Your task to perform on an android device: Is it going to rain tomorrow? Image 0: 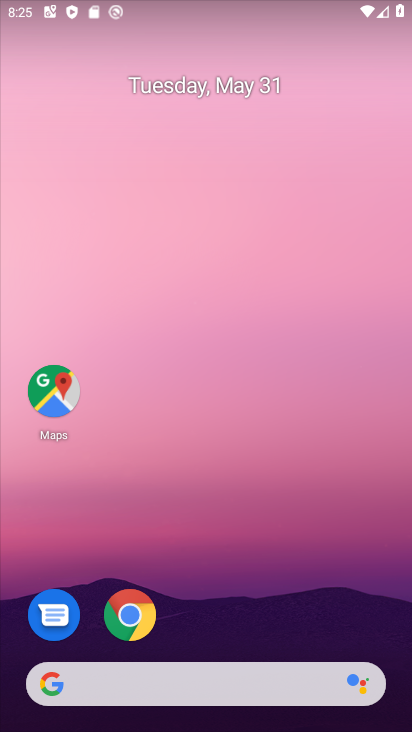
Step 0: click (380, 646)
Your task to perform on an android device: Is it going to rain tomorrow? Image 1: 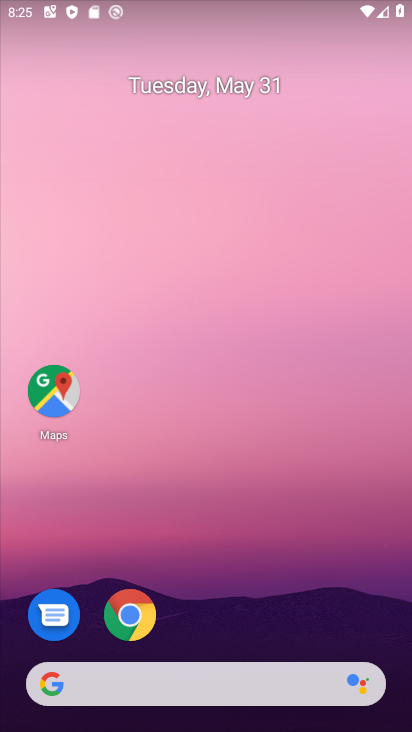
Step 1: click (187, 680)
Your task to perform on an android device: Is it going to rain tomorrow? Image 2: 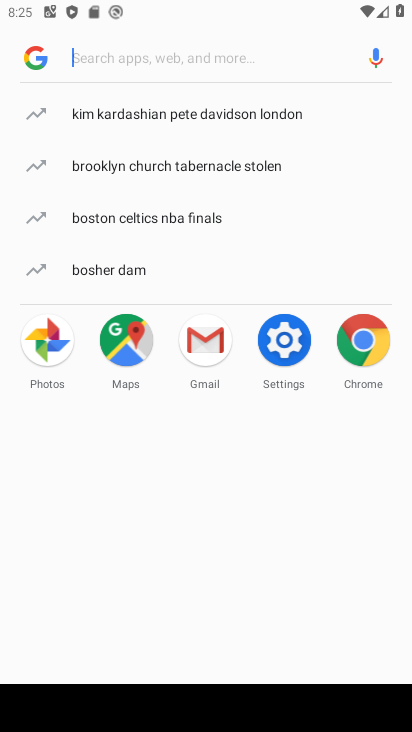
Step 2: press back button
Your task to perform on an android device: Is it going to rain tomorrow? Image 3: 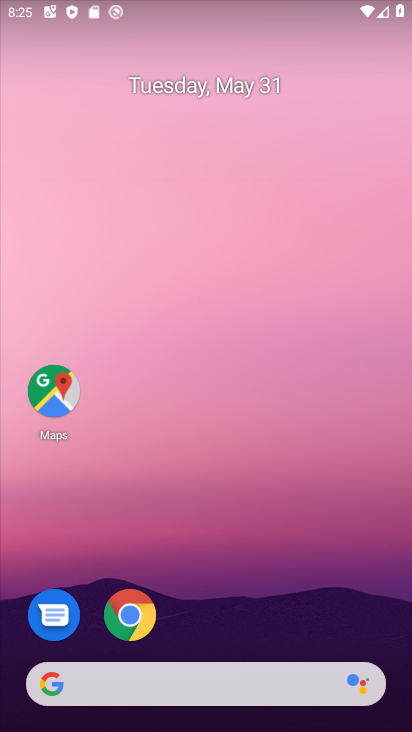
Step 3: drag from (24, 272) to (362, 239)
Your task to perform on an android device: Is it going to rain tomorrow? Image 4: 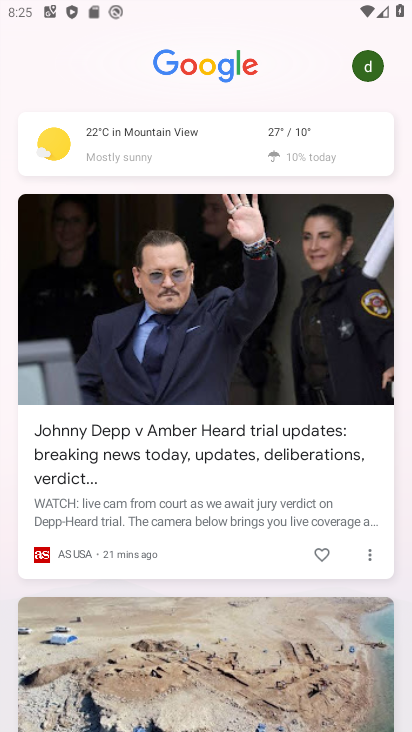
Step 4: click (284, 138)
Your task to perform on an android device: Is it going to rain tomorrow? Image 5: 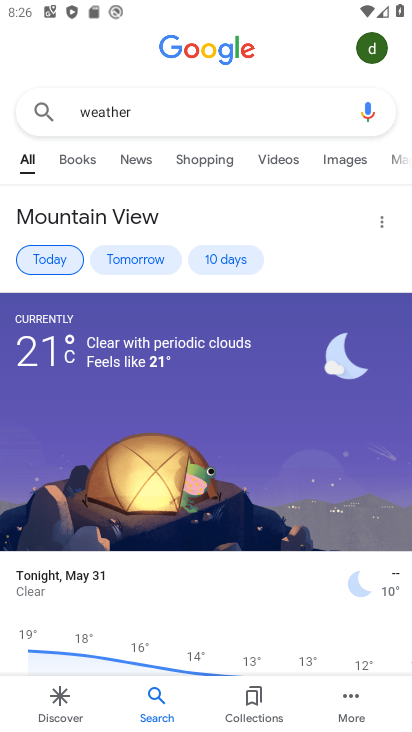
Step 5: click (145, 258)
Your task to perform on an android device: Is it going to rain tomorrow? Image 6: 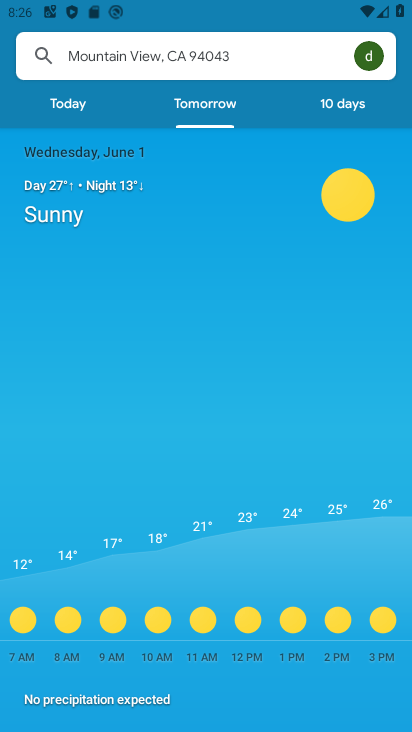
Step 6: task complete